Your task to perform on an android device: turn on the 24-hour format for clock Image 0: 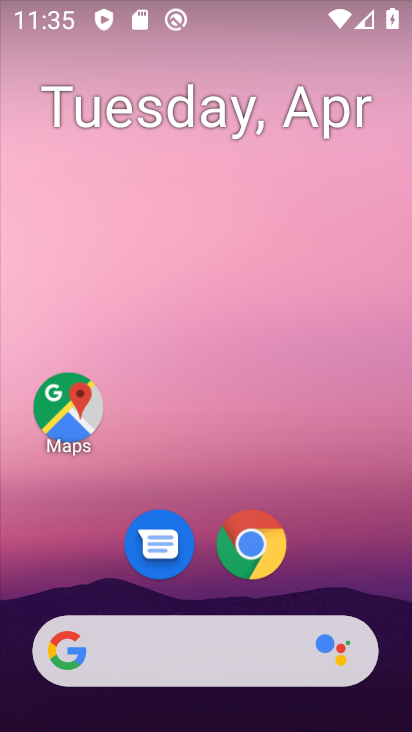
Step 0: drag from (352, 457) to (363, 157)
Your task to perform on an android device: turn on the 24-hour format for clock Image 1: 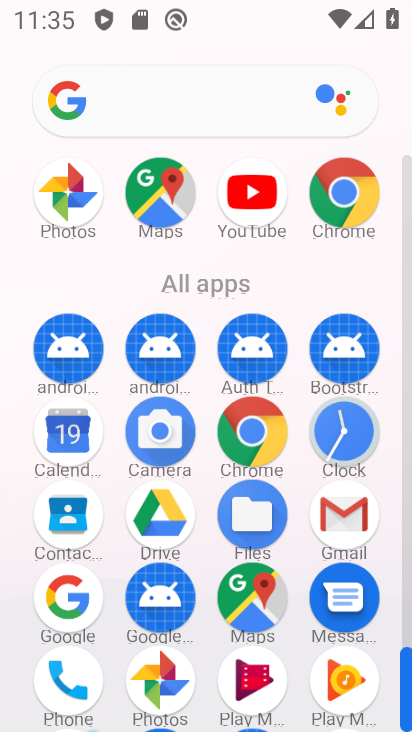
Step 1: click (349, 435)
Your task to perform on an android device: turn on the 24-hour format for clock Image 2: 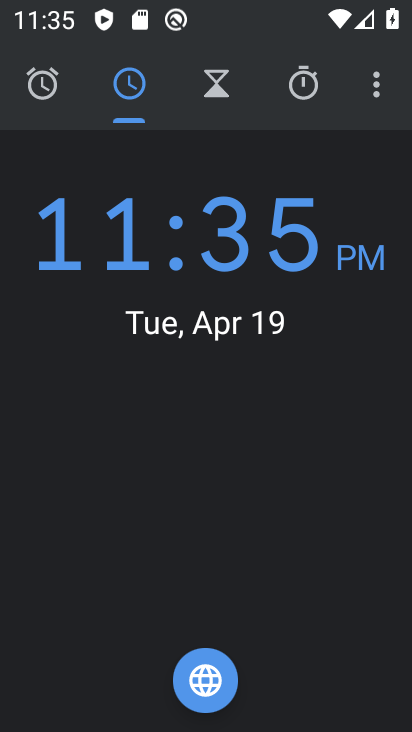
Step 2: click (382, 84)
Your task to perform on an android device: turn on the 24-hour format for clock Image 3: 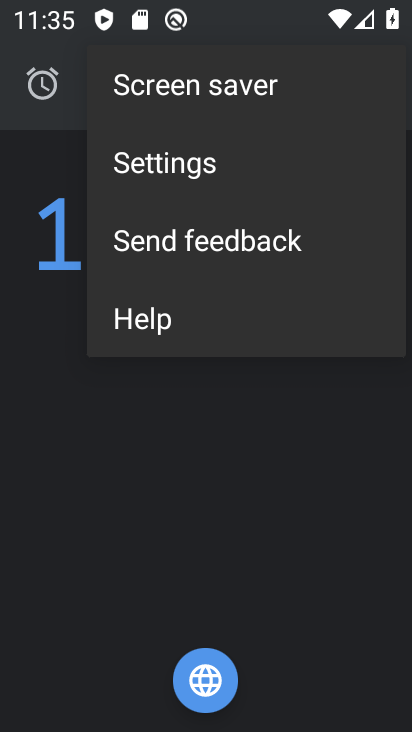
Step 3: click (205, 167)
Your task to perform on an android device: turn on the 24-hour format for clock Image 4: 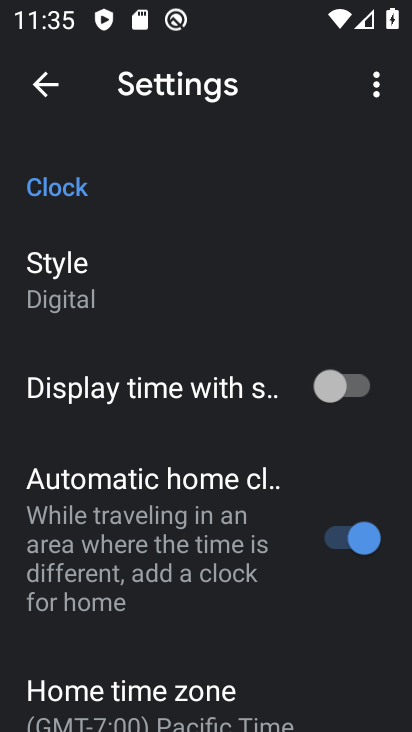
Step 4: drag from (265, 634) to (274, 404)
Your task to perform on an android device: turn on the 24-hour format for clock Image 5: 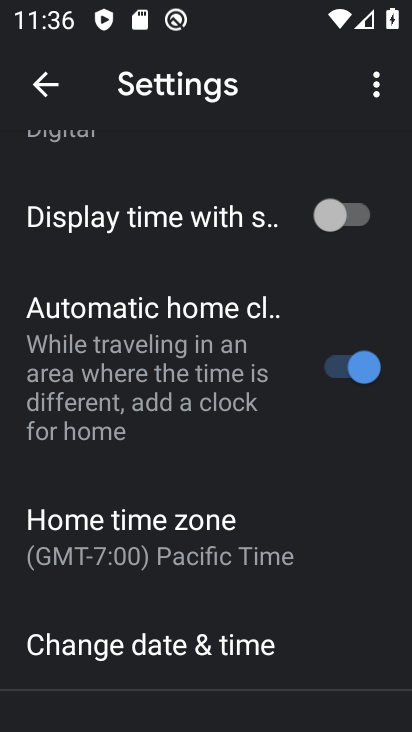
Step 5: drag from (303, 613) to (300, 446)
Your task to perform on an android device: turn on the 24-hour format for clock Image 6: 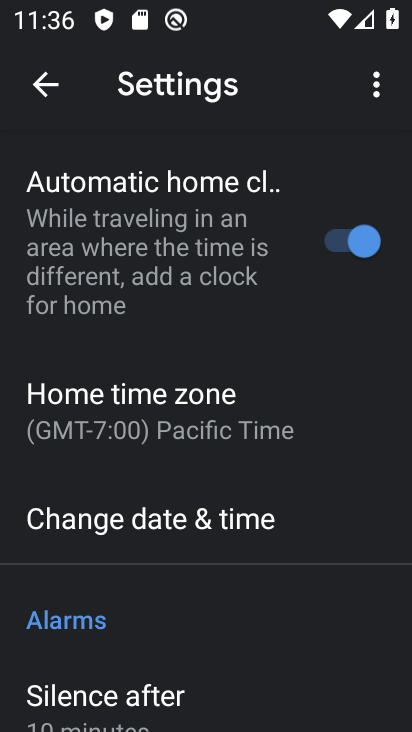
Step 6: drag from (292, 631) to (289, 440)
Your task to perform on an android device: turn on the 24-hour format for clock Image 7: 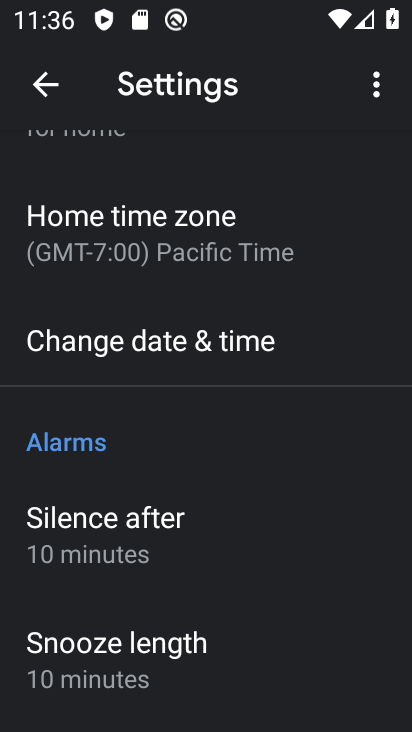
Step 7: drag from (312, 562) to (314, 367)
Your task to perform on an android device: turn on the 24-hour format for clock Image 8: 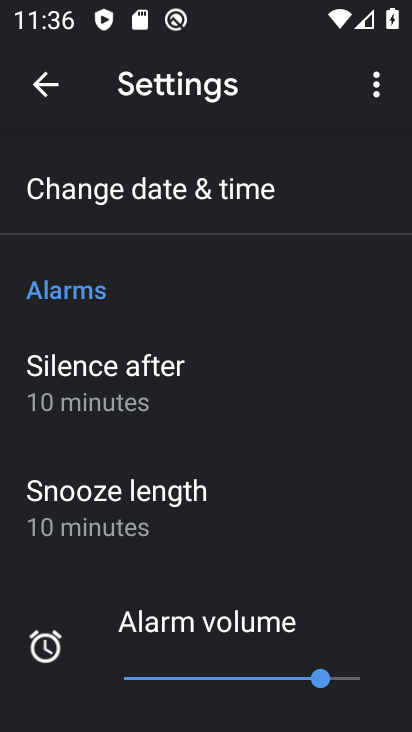
Step 8: drag from (340, 538) to (352, 388)
Your task to perform on an android device: turn on the 24-hour format for clock Image 9: 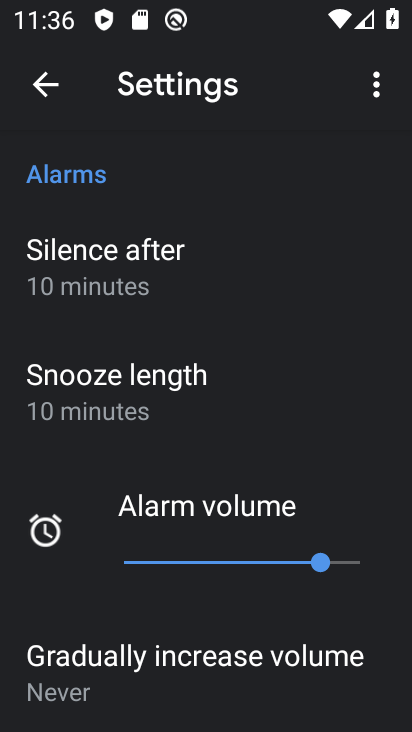
Step 9: drag from (380, 584) to (379, 370)
Your task to perform on an android device: turn on the 24-hour format for clock Image 10: 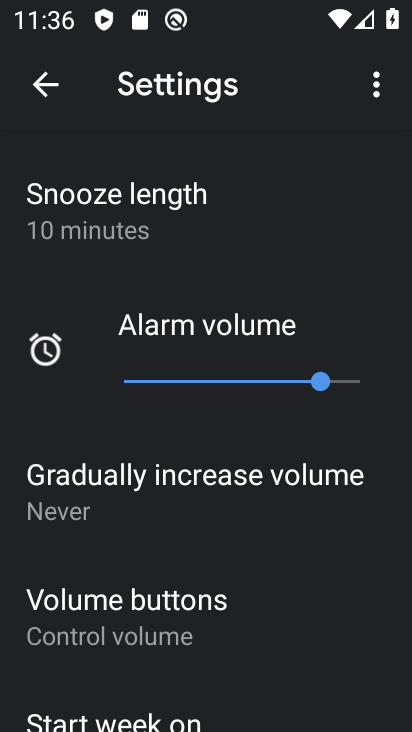
Step 10: drag from (359, 618) to (360, 453)
Your task to perform on an android device: turn on the 24-hour format for clock Image 11: 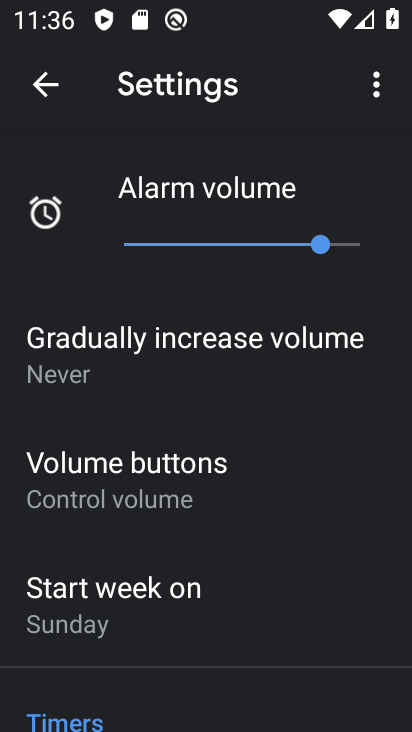
Step 11: drag from (374, 288) to (359, 526)
Your task to perform on an android device: turn on the 24-hour format for clock Image 12: 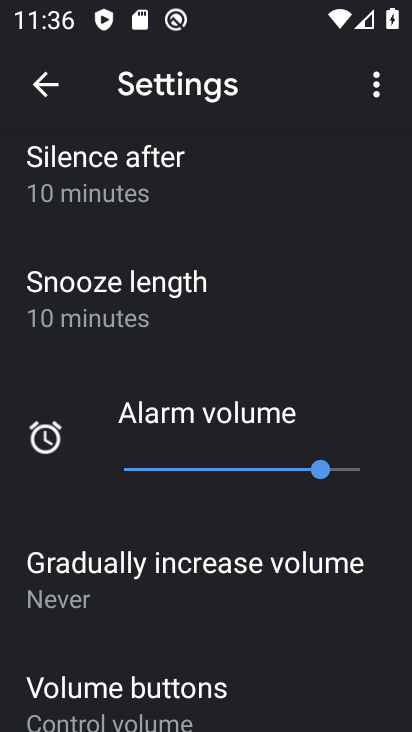
Step 12: drag from (369, 304) to (374, 520)
Your task to perform on an android device: turn on the 24-hour format for clock Image 13: 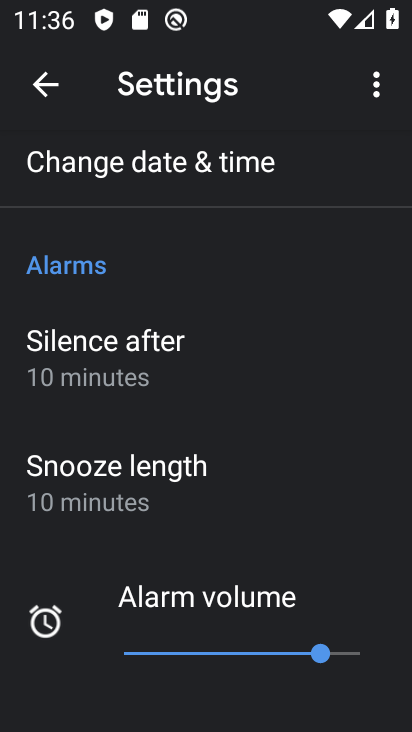
Step 13: drag from (358, 315) to (354, 476)
Your task to perform on an android device: turn on the 24-hour format for clock Image 14: 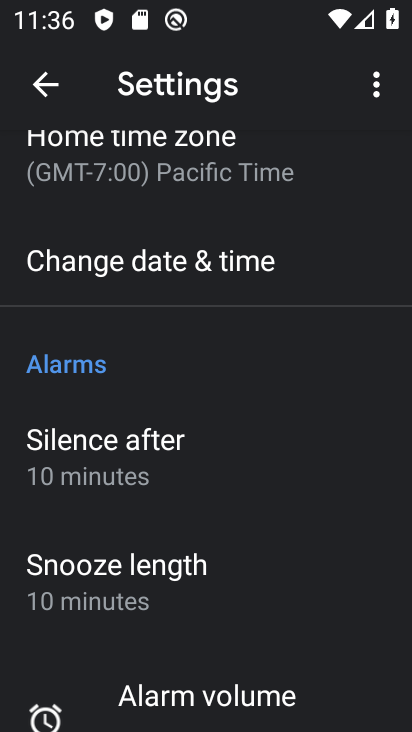
Step 14: click (248, 271)
Your task to perform on an android device: turn on the 24-hour format for clock Image 15: 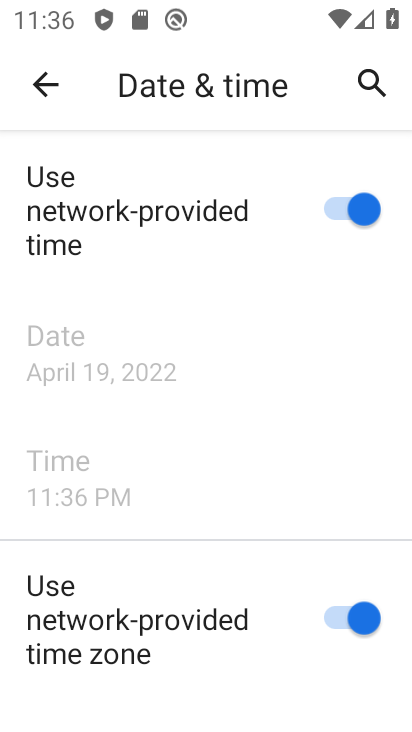
Step 15: drag from (272, 629) to (292, 429)
Your task to perform on an android device: turn on the 24-hour format for clock Image 16: 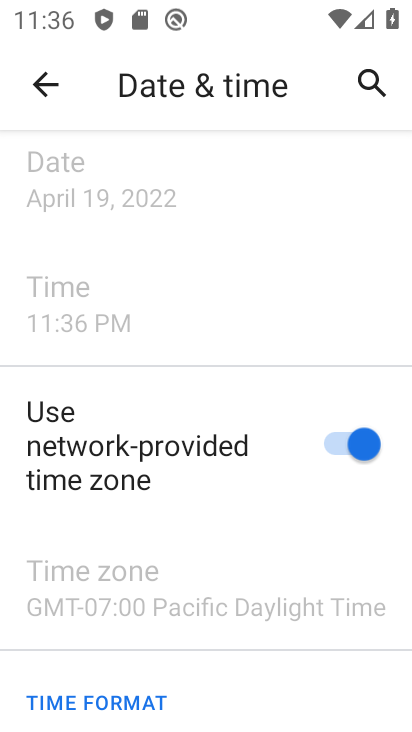
Step 16: drag from (264, 649) to (278, 361)
Your task to perform on an android device: turn on the 24-hour format for clock Image 17: 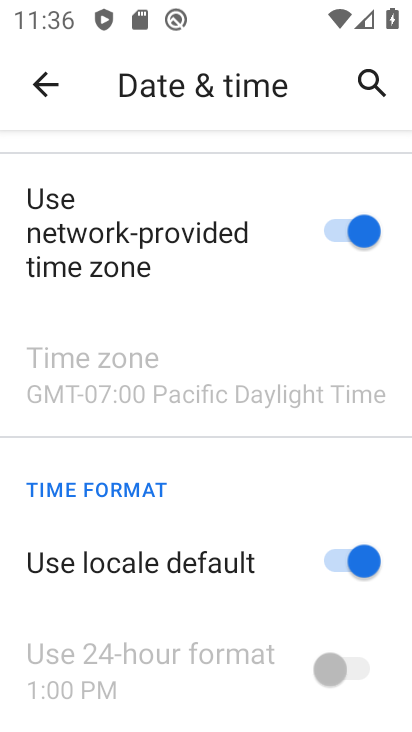
Step 17: drag from (217, 673) to (236, 486)
Your task to perform on an android device: turn on the 24-hour format for clock Image 18: 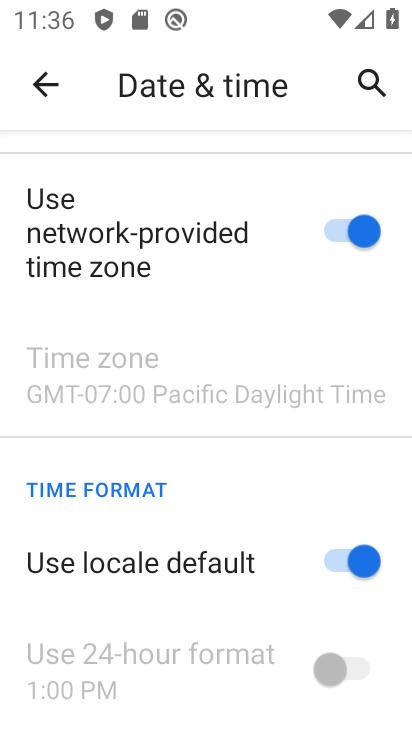
Step 18: click (336, 556)
Your task to perform on an android device: turn on the 24-hour format for clock Image 19: 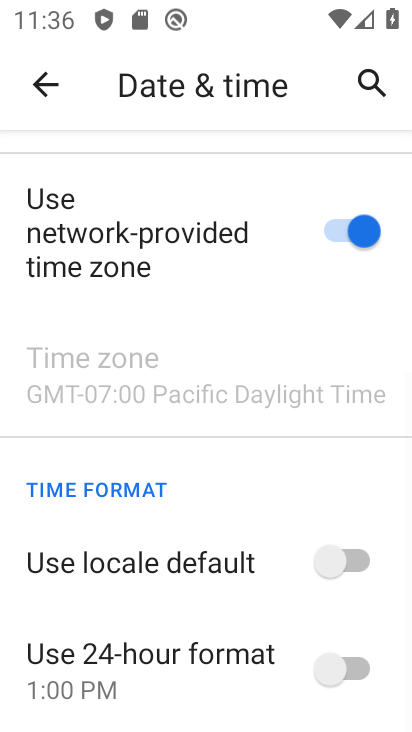
Step 19: click (317, 677)
Your task to perform on an android device: turn on the 24-hour format for clock Image 20: 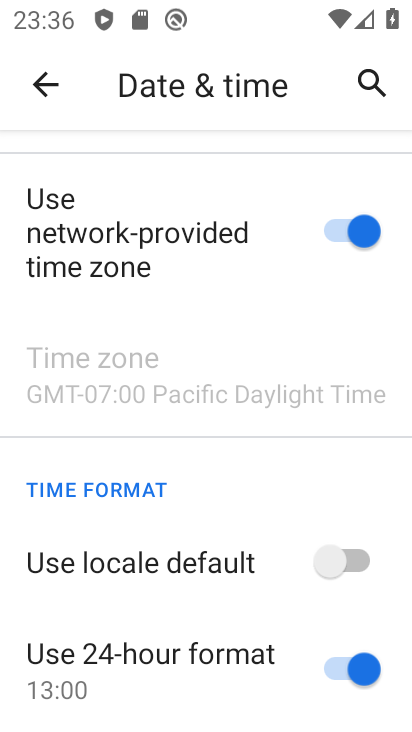
Step 20: task complete